Your task to perform on an android device: turn smart compose on in the gmail app Image 0: 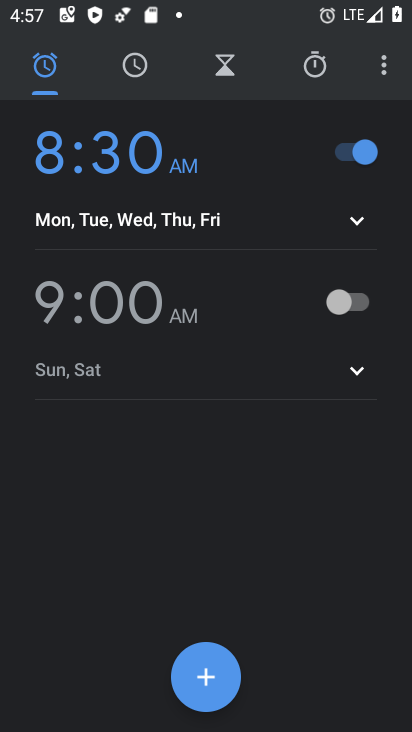
Step 0: press home button
Your task to perform on an android device: turn smart compose on in the gmail app Image 1: 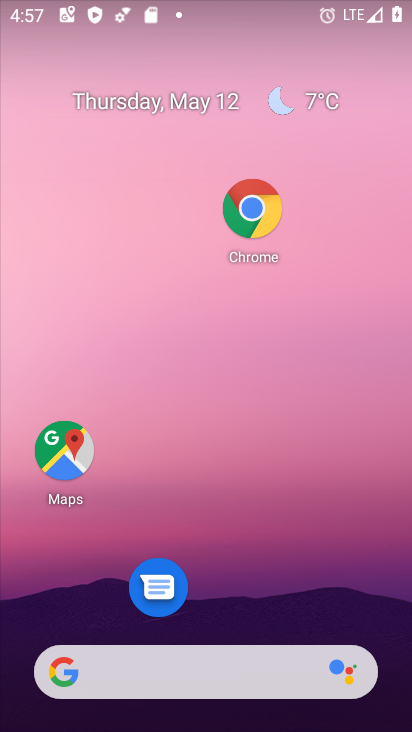
Step 1: drag from (259, 611) to (258, 194)
Your task to perform on an android device: turn smart compose on in the gmail app Image 2: 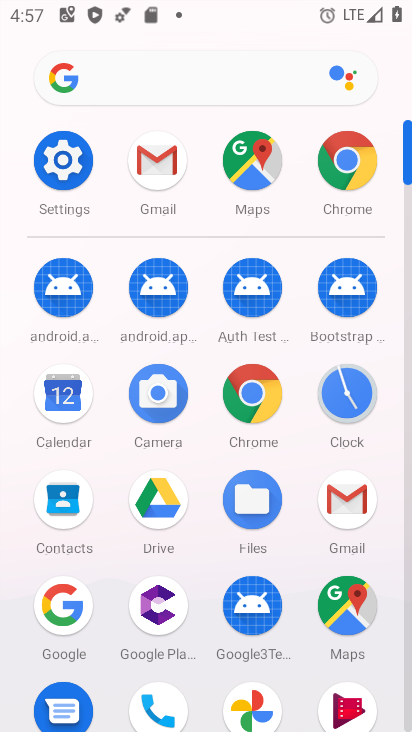
Step 2: press home button
Your task to perform on an android device: turn smart compose on in the gmail app Image 3: 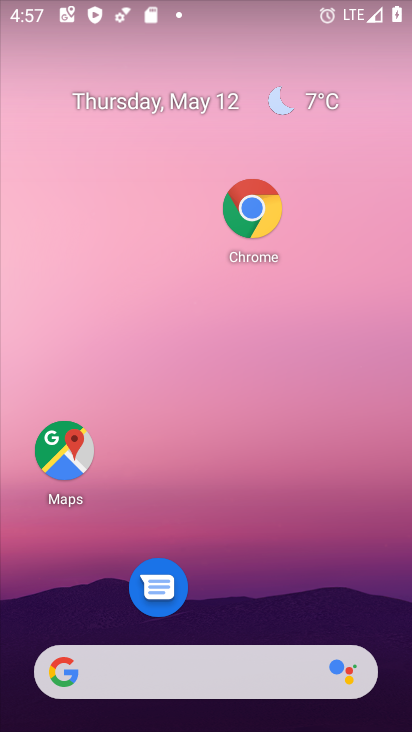
Step 3: drag from (233, 174) to (208, 12)
Your task to perform on an android device: turn smart compose on in the gmail app Image 4: 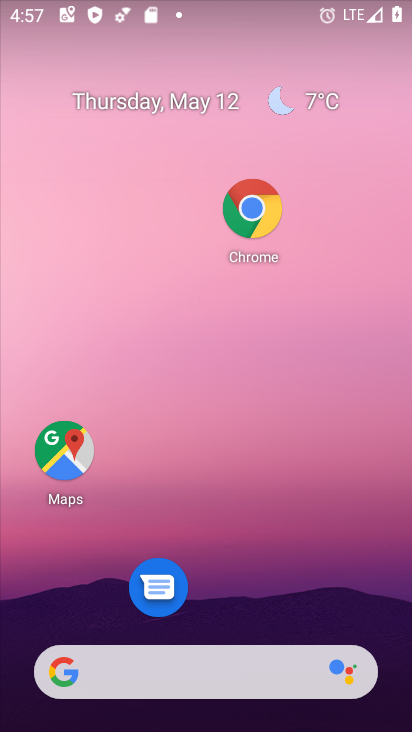
Step 4: drag from (227, 611) to (249, 142)
Your task to perform on an android device: turn smart compose on in the gmail app Image 5: 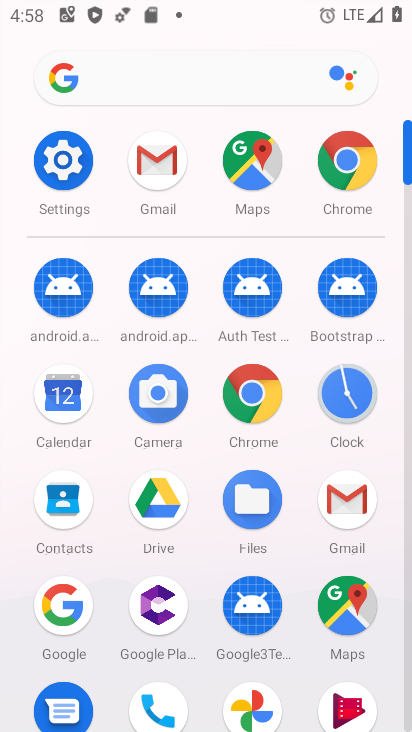
Step 5: click (171, 183)
Your task to perform on an android device: turn smart compose on in the gmail app Image 6: 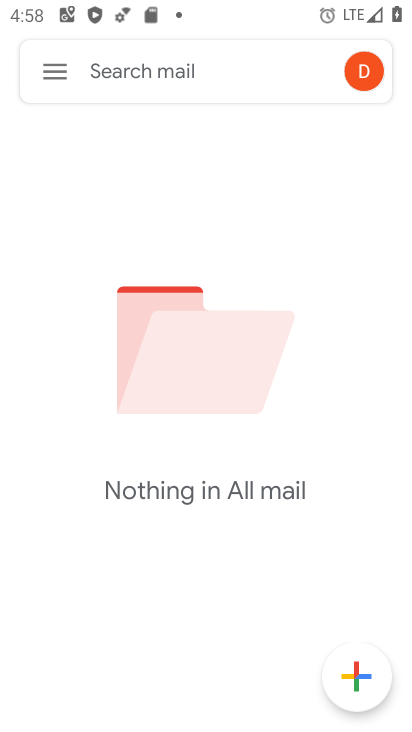
Step 6: click (65, 62)
Your task to perform on an android device: turn smart compose on in the gmail app Image 7: 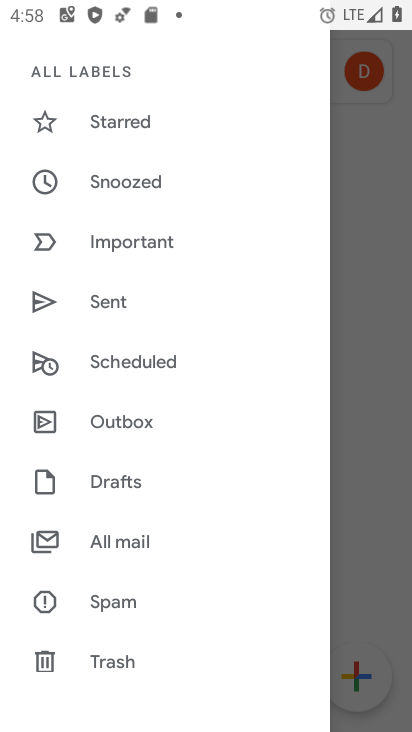
Step 7: drag from (98, 418) to (85, 280)
Your task to perform on an android device: turn smart compose on in the gmail app Image 8: 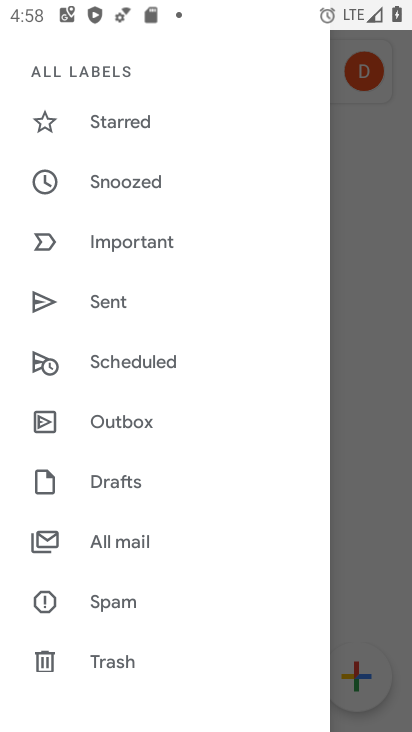
Step 8: drag from (136, 659) to (128, 261)
Your task to perform on an android device: turn smart compose on in the gmail app Image 9: 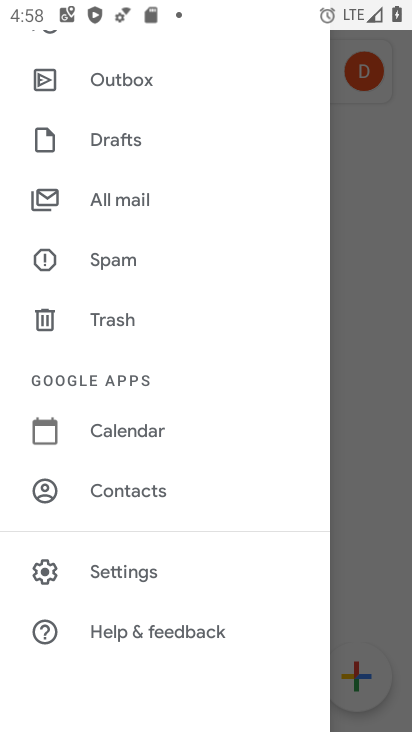
Step 9: click (135, 570)
Your task to perform on an android device: turn smart compose on in the gmail app Image 10: 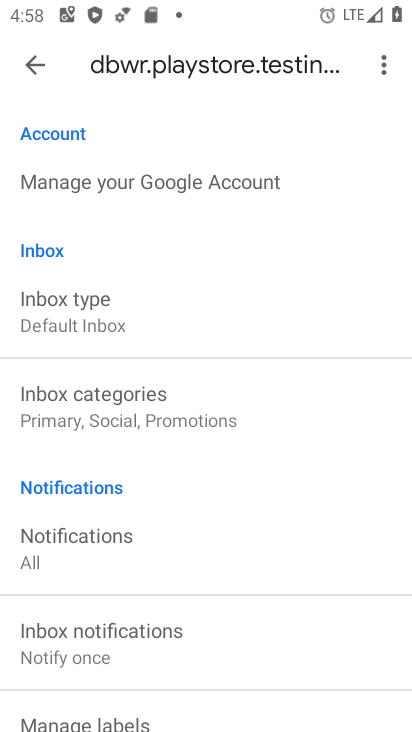
Step 10: task complete